Your task to perform on an android device: Search for sushi restaurants on Maps Image 0: 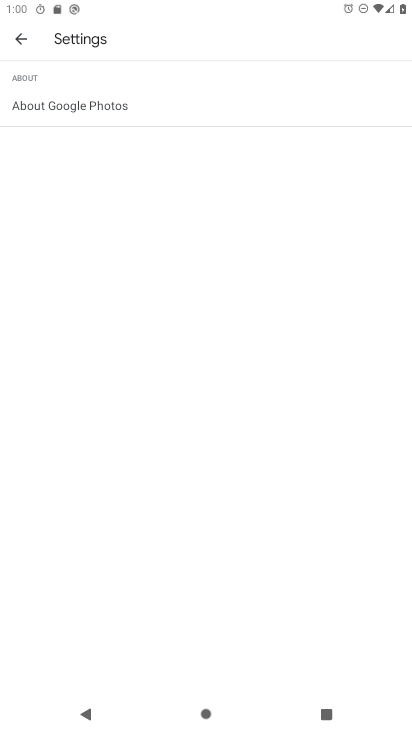
Step 0: press home button
Your task to perform on an android device: Search for sushi restaurants on Maps Image 1: 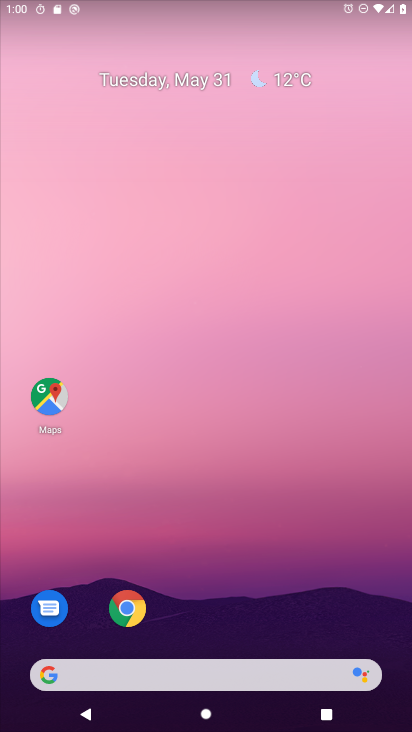
Step 1: click (38, 404)
Your task to perform on an android device: Search for sushi restaurants on Maps Image 2: 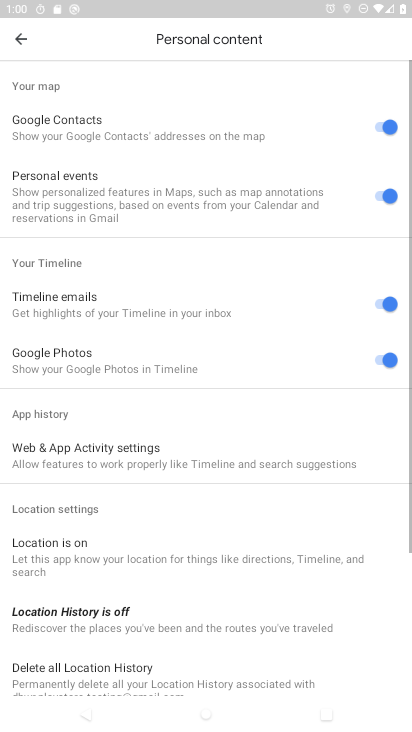
Step 2: click (17, 36)
Your task to perform on an android device: Search for sushi restaurants on Maps Image 3: 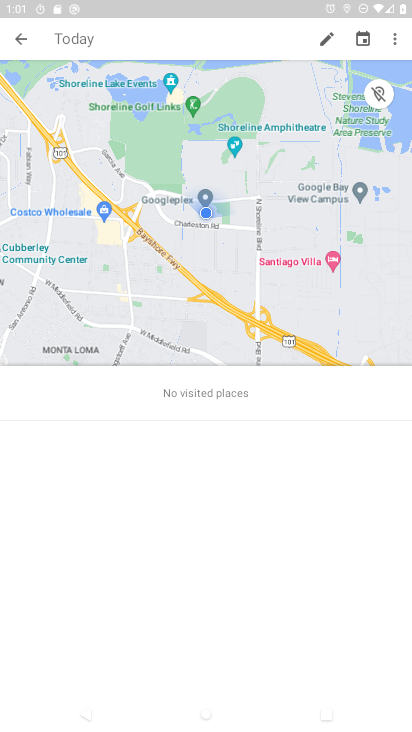
Step 3: click (17, 35)
Your task to perform on an android device: Search for sushi restaurants on Maps Image 4: 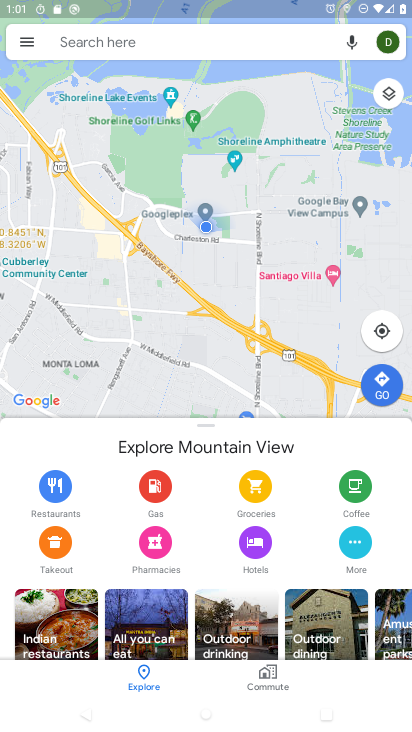
Step 4: click (69, 42)
Your task to perform on an android device: Search for sushi restaurants on Maps Image 5: 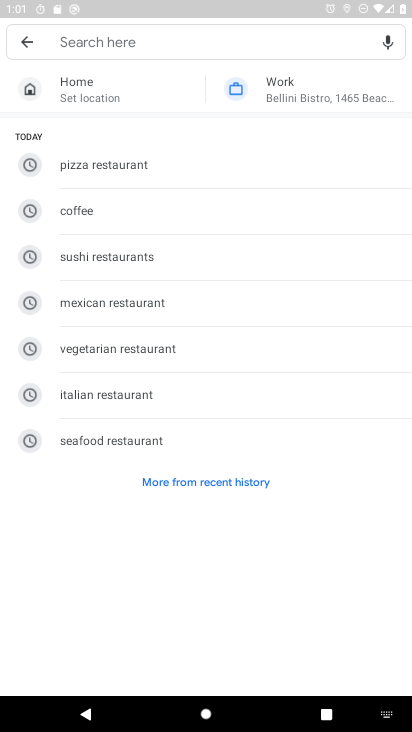
Step 5: type "sushi restaurants"
Your task to perform on an android device: Search for sushi restaurants on Maps Image 6: 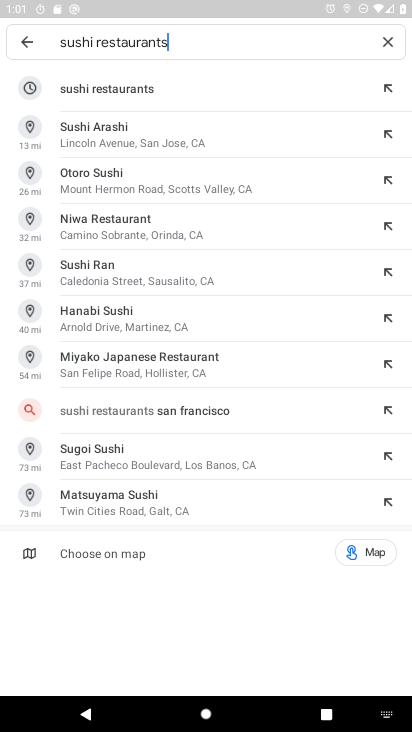
Step 6: click (92, 97)
Your task to perform on an android device: Search for sushi restaurants on Maps Image 7: 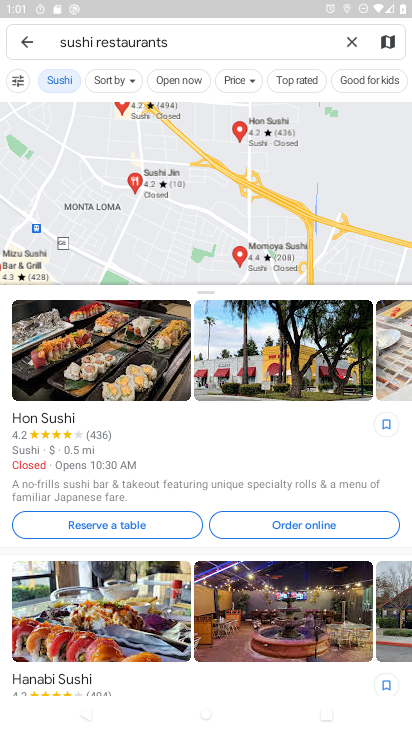
Step 7: task complete